Your task to perform on an android device: What's the weather? Image 0: 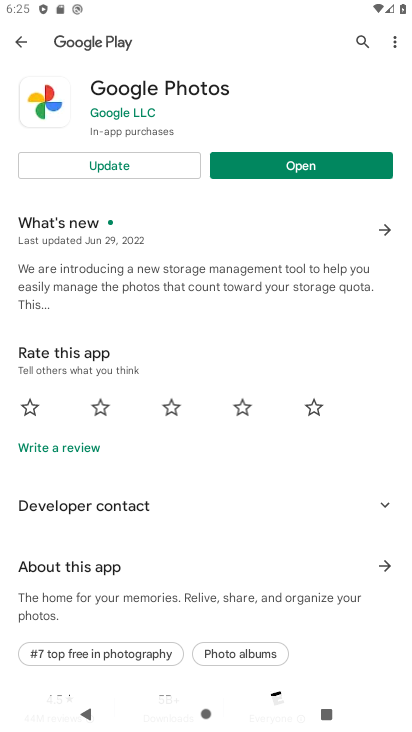
Step 0: press back button
Your task to perform on an android device: What's the weather? Image 1: 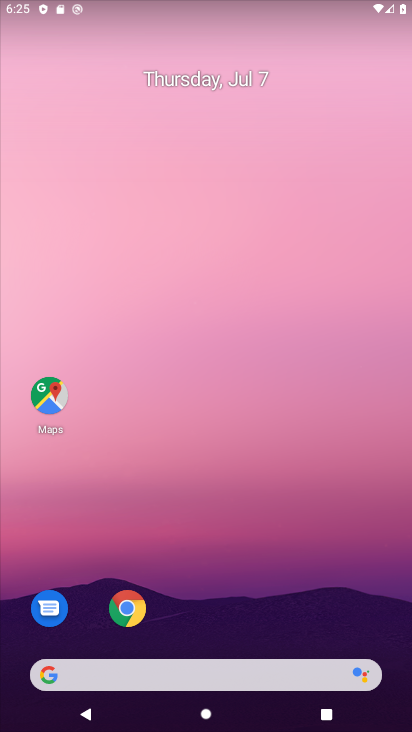
Step 1: click (157, 678)
Your task to perform on an android device: What's the weather? Image 2: 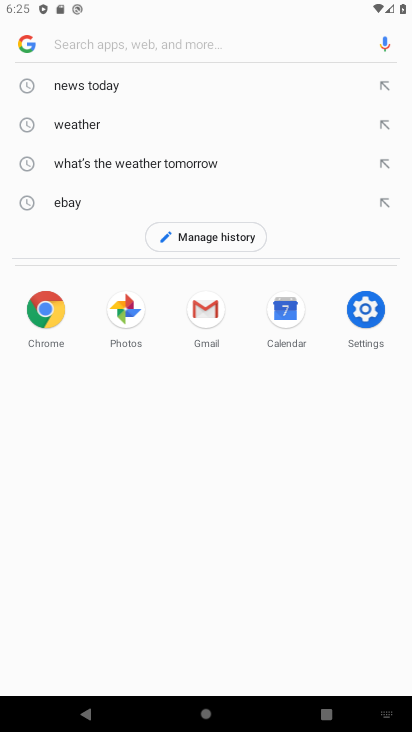
Step 2: click (99, 124)
Your task to perform on an android device: What's the weather? Image 3: 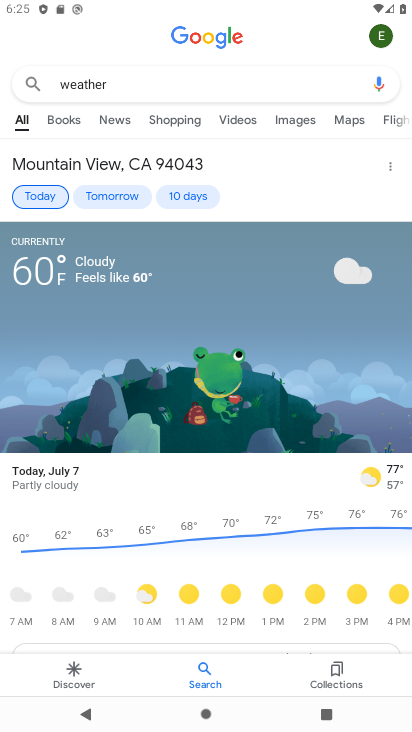
Step 3: task complete